Your task to perform on an android device: turn off smart reply in the gmail app Image 0: 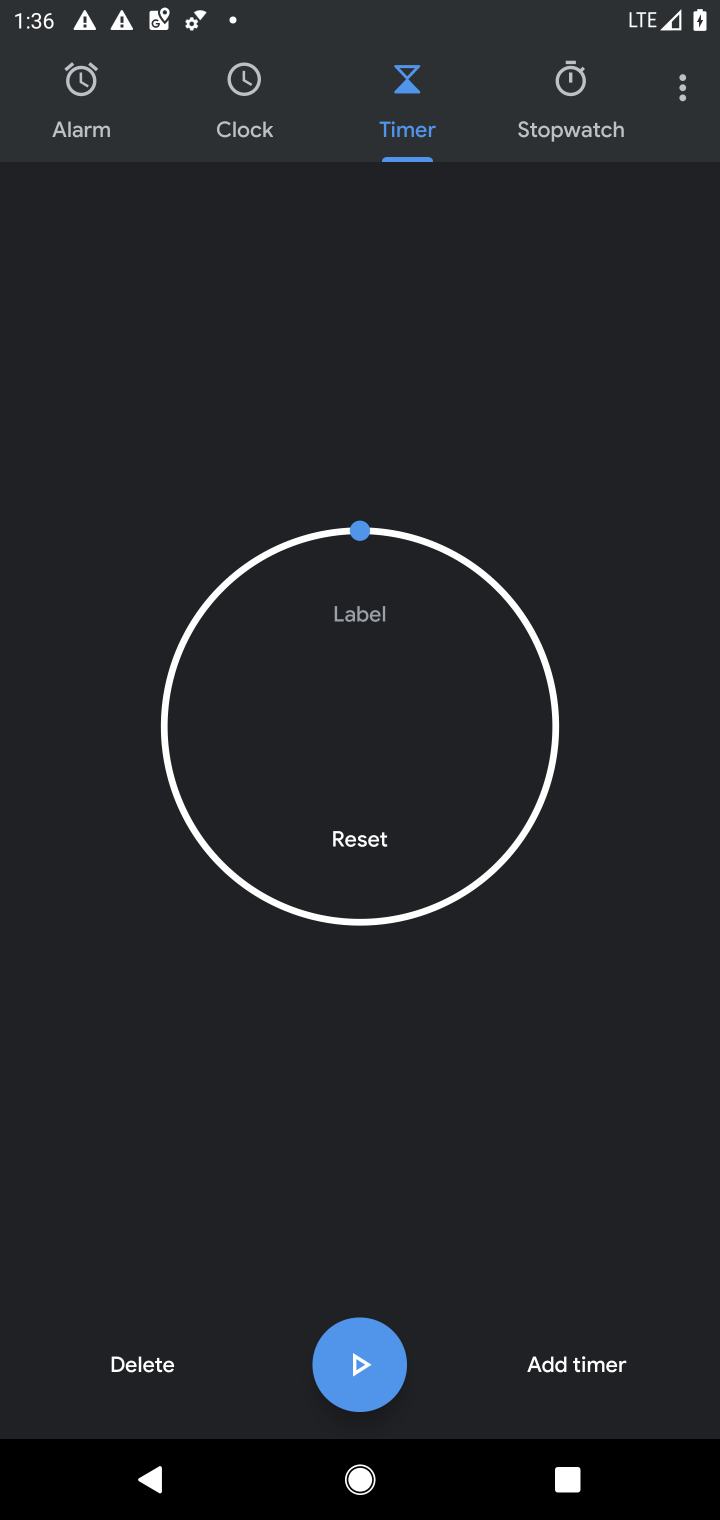
Step 0: press home button
Your task to perform on an android device: turn off smart reply in the gmail app Image 1: 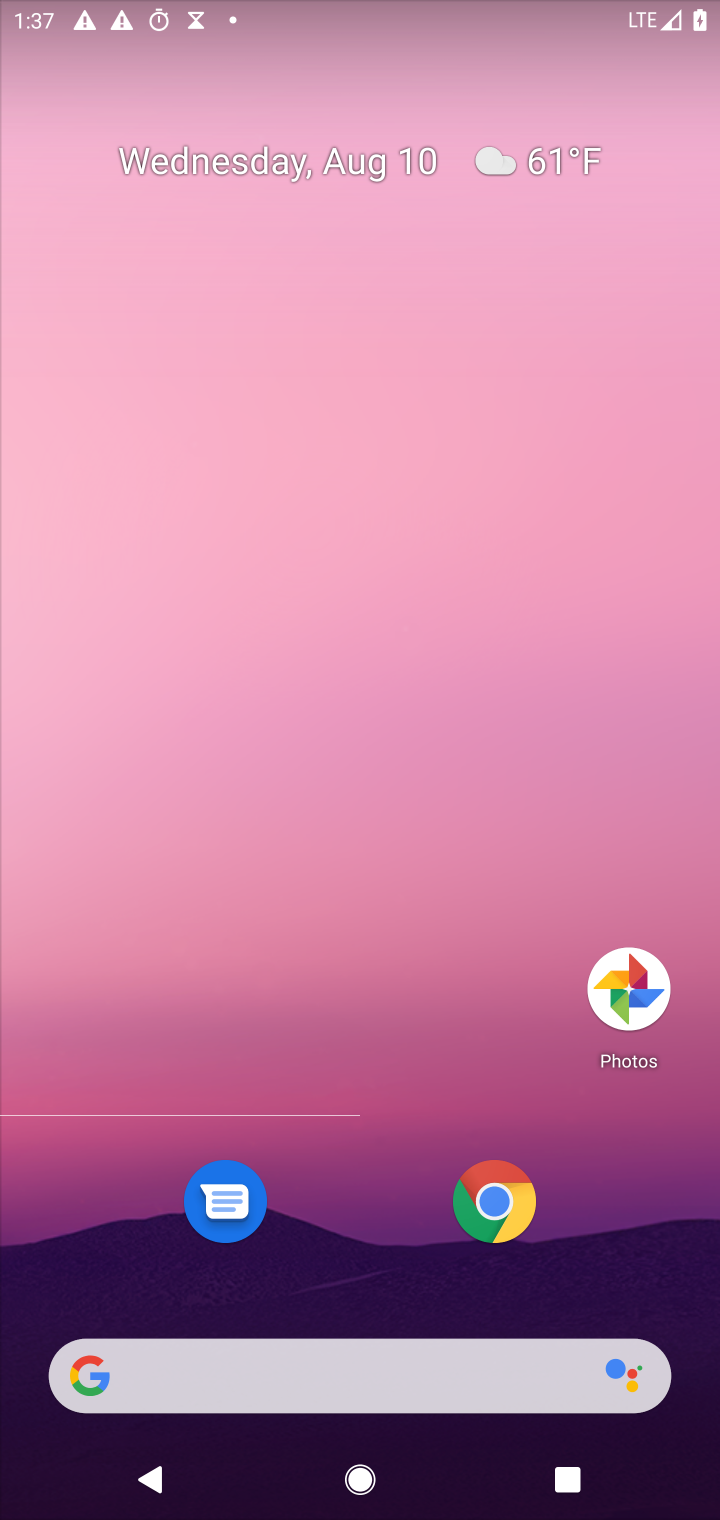
Step 1: drag from (363, 1158) to (312, 8)
Your task to perform on an android device: turn off smart reply in the gmail app Image 2: 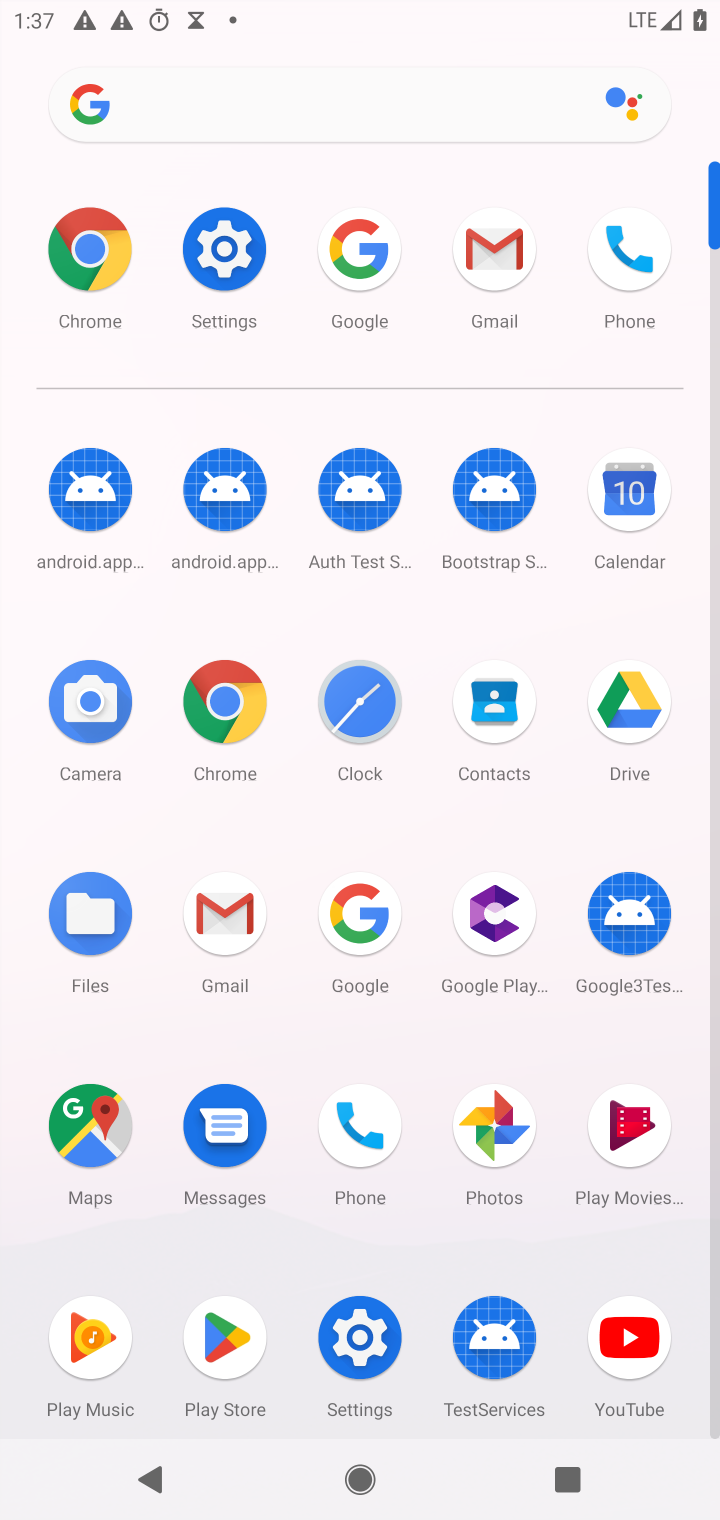
Step 2: click (490, 254)
Your task to perform on an android device: turn off smart reply in the gmail app Image 3: 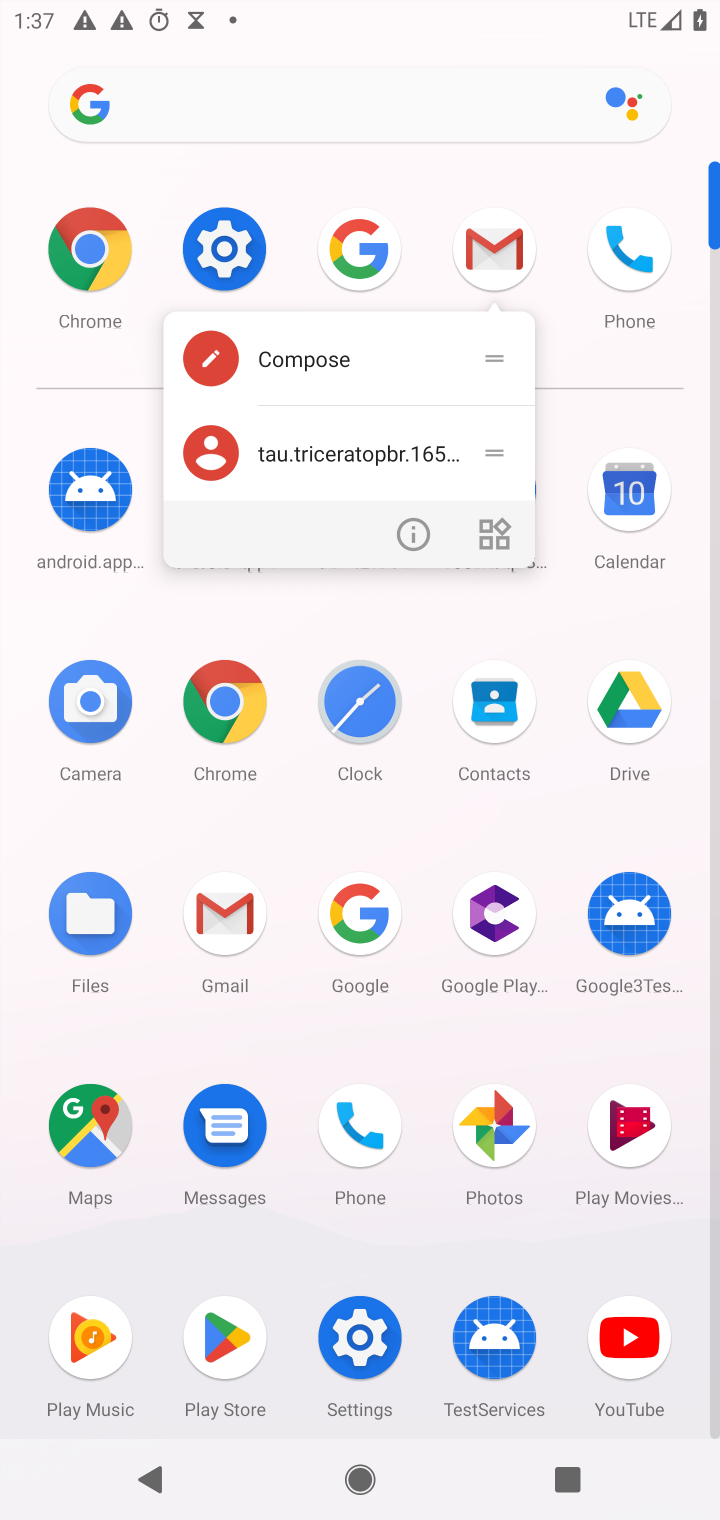
Step 3: click (497, 238)
Your task to perform on an android device: turn off smart reply in the gmail app Image 4: 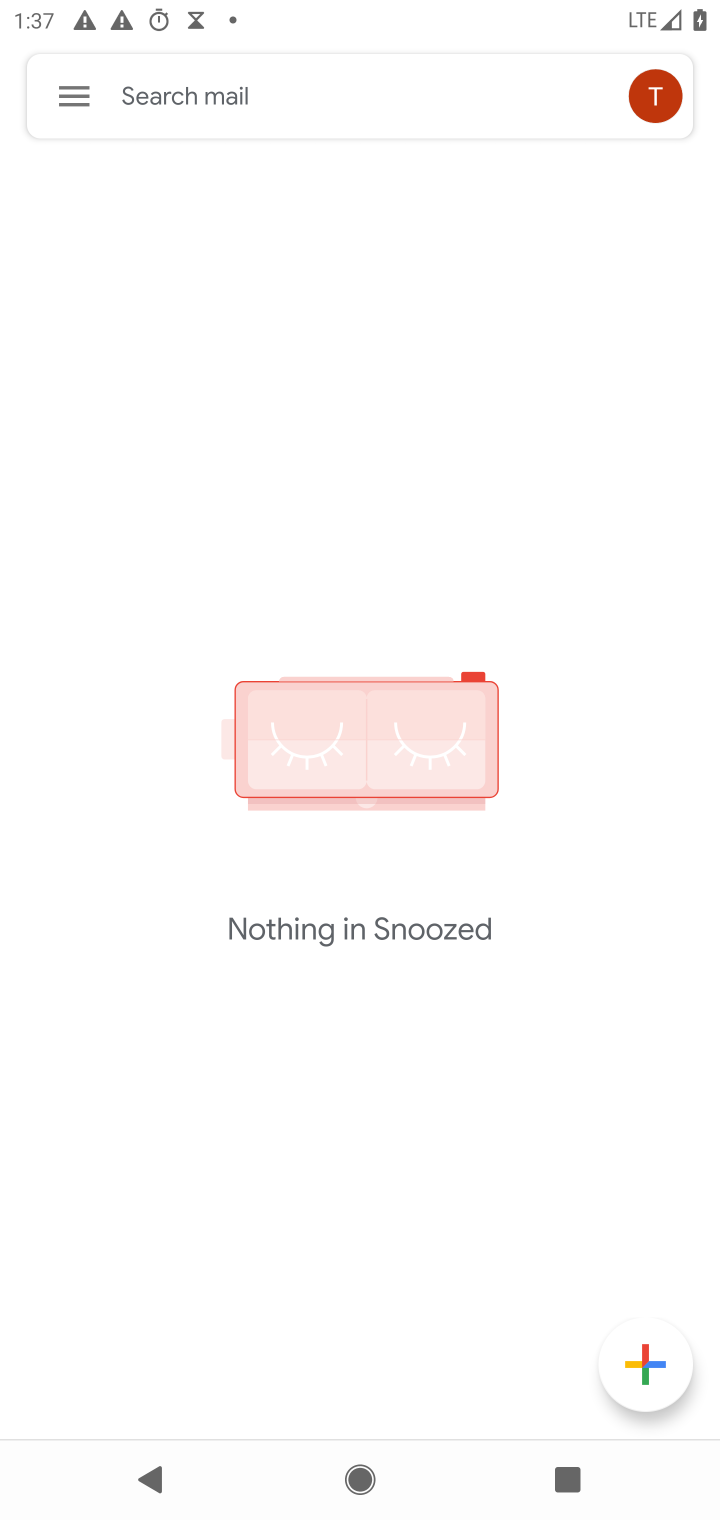
Step 4: click (78, 99)
Your task to perform on an android device: turn off smart reply in the gmail app Image 5: 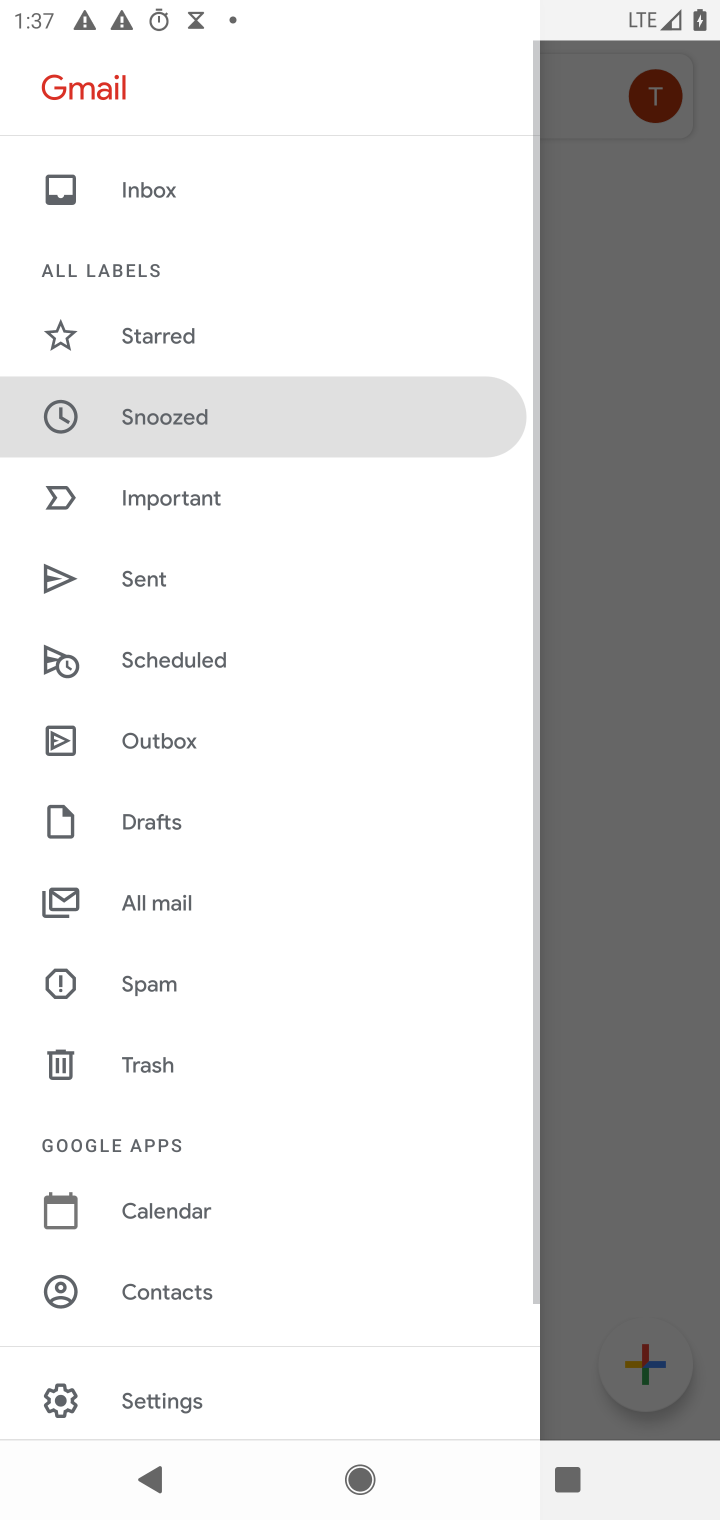
Step 5: click (176, 1396)
Your task to perform on an android device: turn off smart reply in the gmail app Image 6: 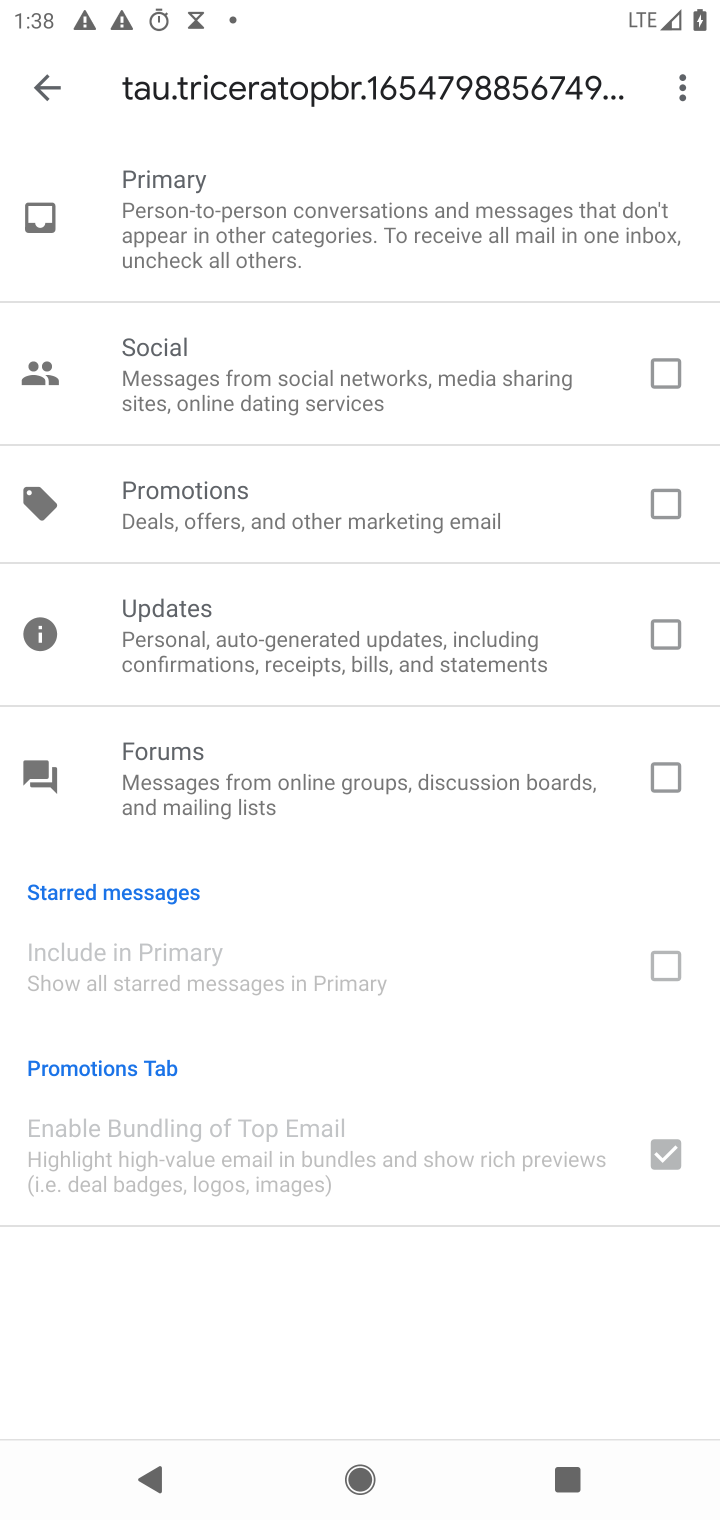
Step 6: click (59, 88)
Your task to perform on an android device: turn off smart reply in the gmail app Image 7: 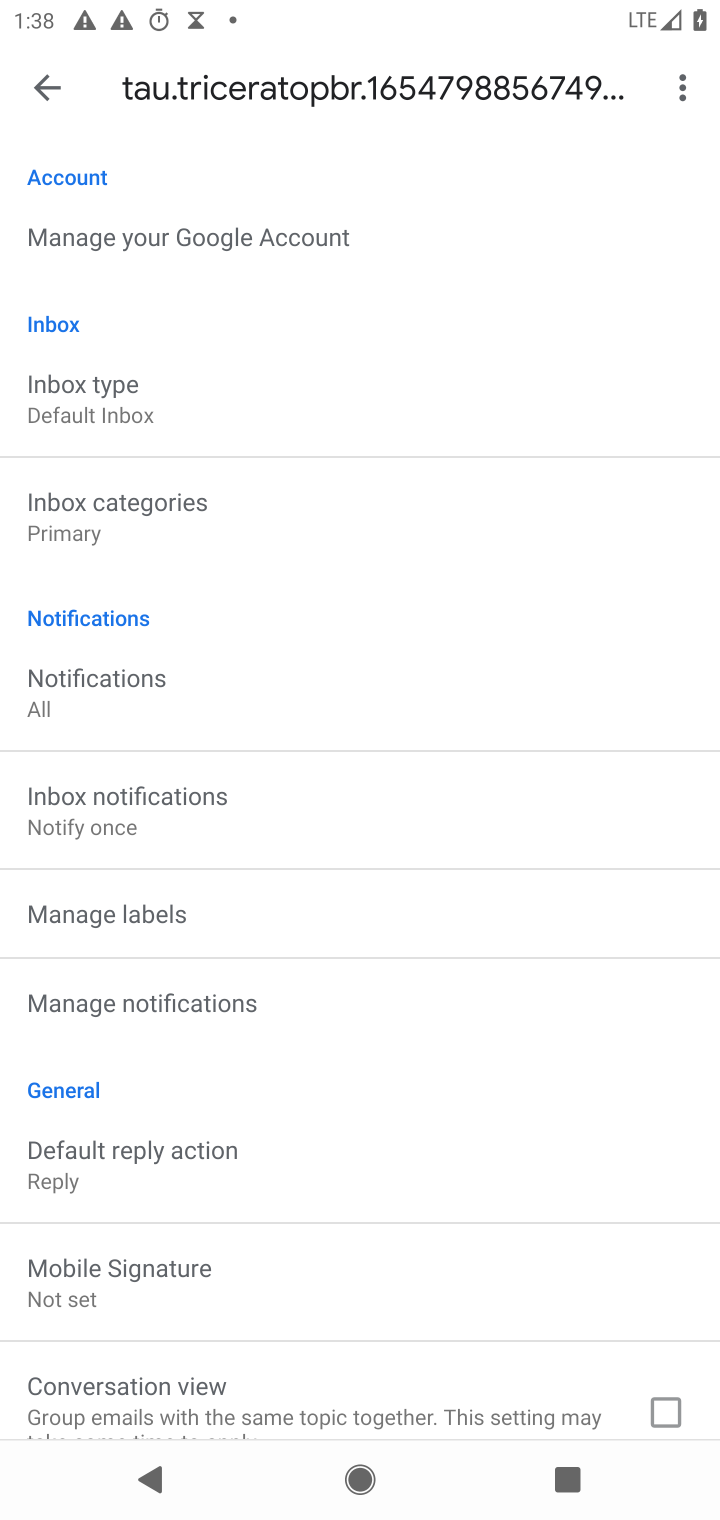
Step 7: drag from (240, 1082) to (206, 551)
Your task to perform on an android device: turn off smart reply in the gmail app Image 8: 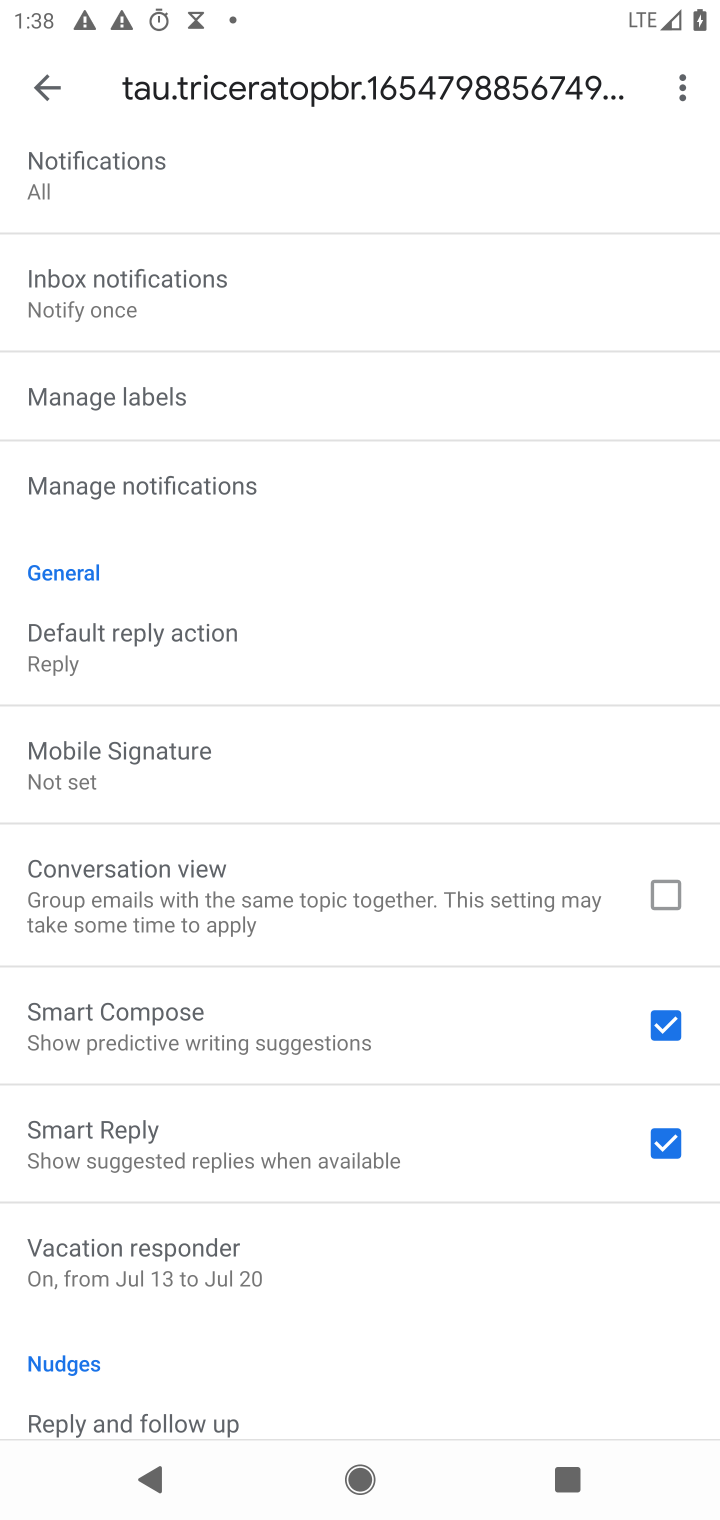
Step 8: click (655, 1134)
Your task to perform on an android device: turn off smart reply in the gmail app Image 9: 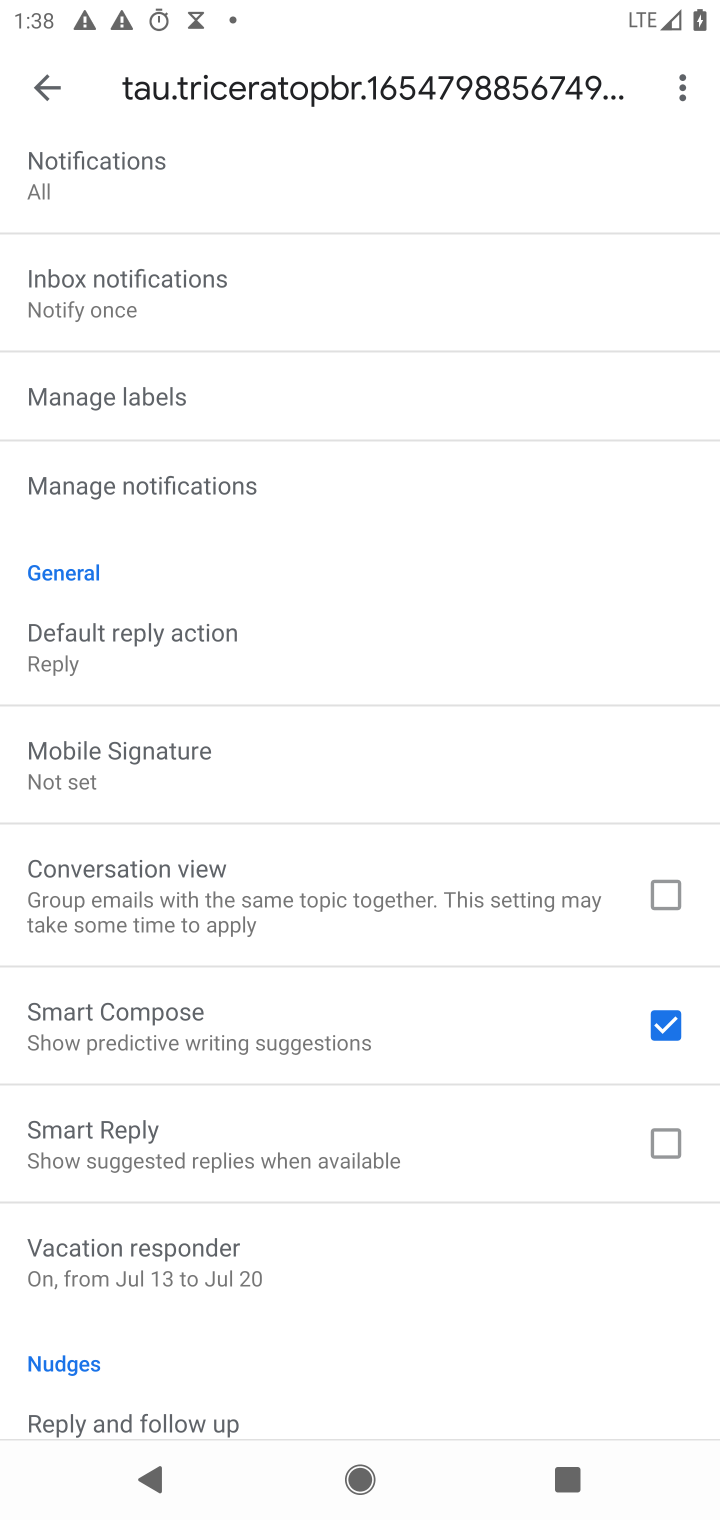
Step 9: task complete